Your task to perform on an android device: turn off improve location accuracy Image 0: 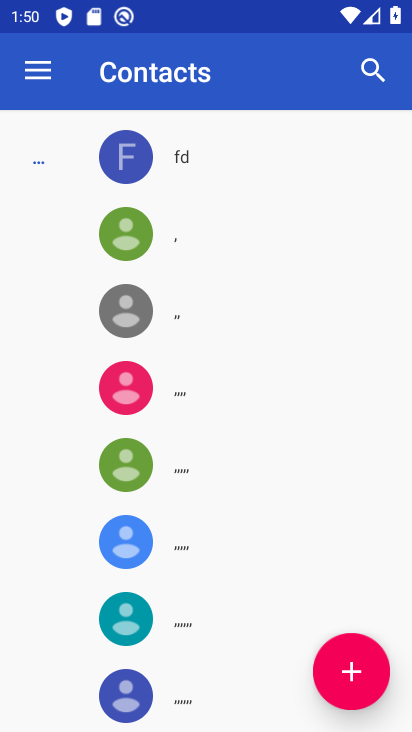
Step 0: press home button
Your task to perform on an android device: turn off improve location accuracy Image 1: 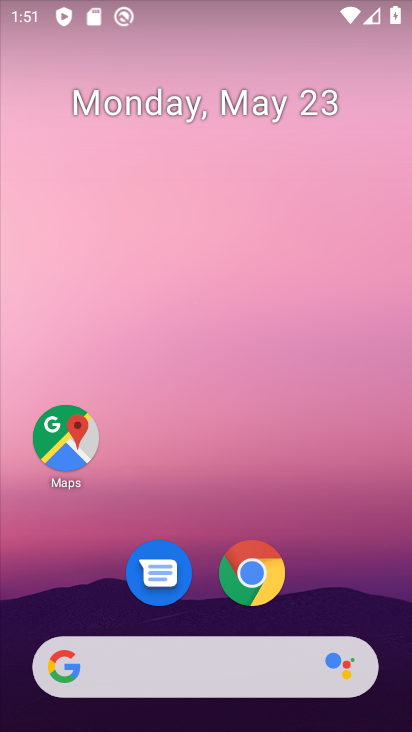
Step 1: drag from (374, 540) to (235, 49)
Your task to perform on an android device: turn off improve location accuracy Image 2: 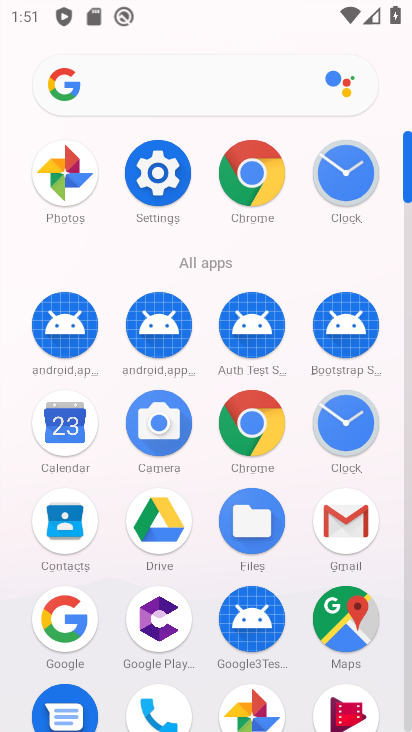
Step 2: click (159, 166)
Your task to perform on an android device: turn off improve location accuracy Image 3: 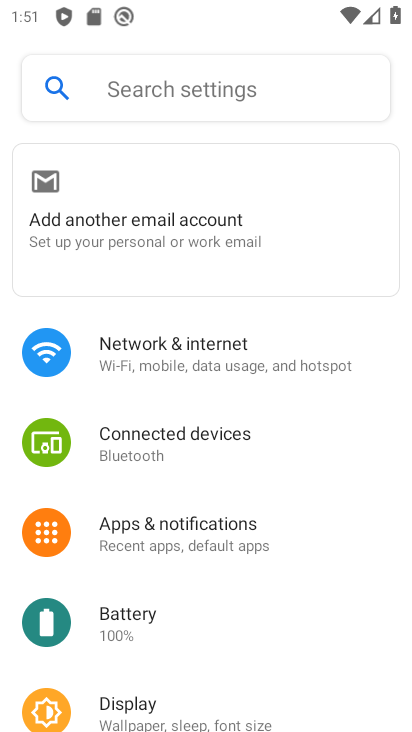
Step 3: drag from (229, 588) to (274, 91)
Your task to perform on an android device: turn off improve location accuracy Image 4: 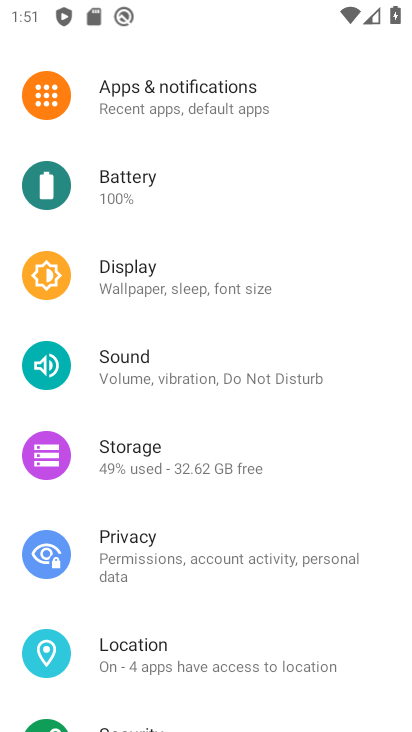
Step 4: drag from (203, 270) to (278, 123)
Your task to perform on an android device: turn off improve location accuracy Image 5: 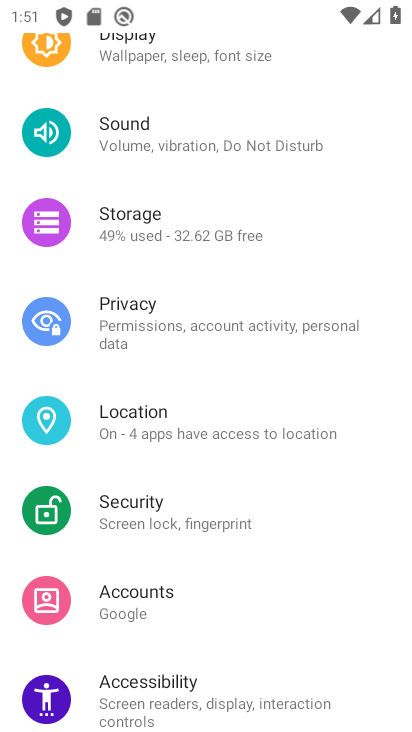
Step 5: drag from (224, 254) to (286, 644)
Your task to perform on an android device: turn off improve location accuracy Image 6: 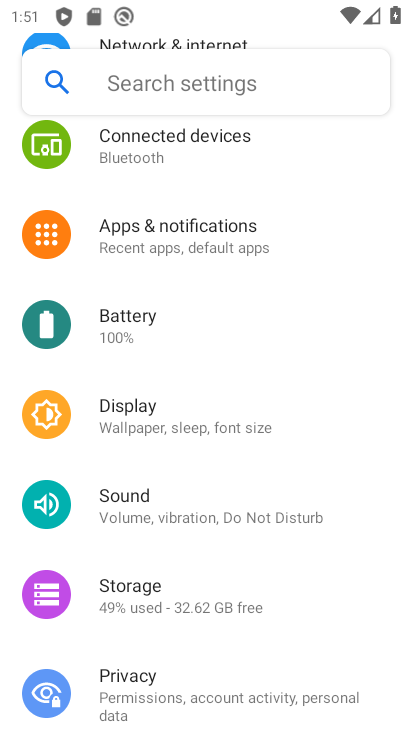
Step 6: drag from (225, 628) to (304, 250)
Your task to perform on an android device: turn off improve location accuracy Image 7: 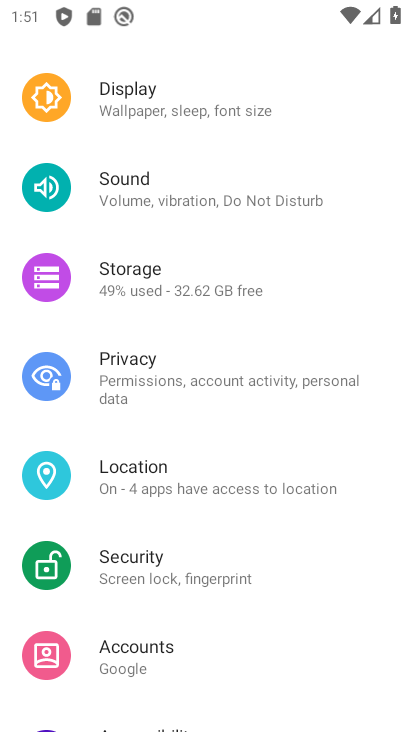
Step 7: click (160, 472)
Your task to perform on an android device: turn off improve location accuracy Image 8: 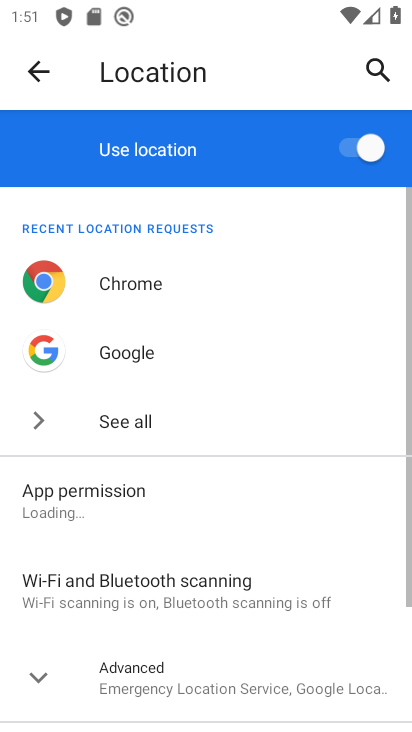
Step 8: drag from (219, 566) to (284, 225)
Your task to perform on an android device: turn off improve location accuracy Image 9: 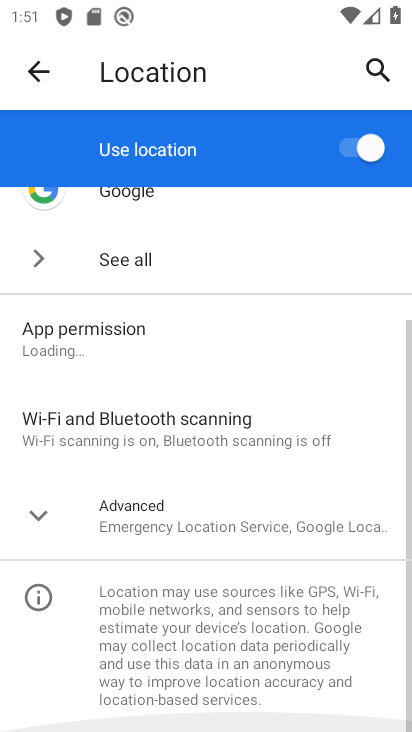
Step 9: click (193, 515)
Your task to perform on an android device: turn off improve location accuracy Image 10: 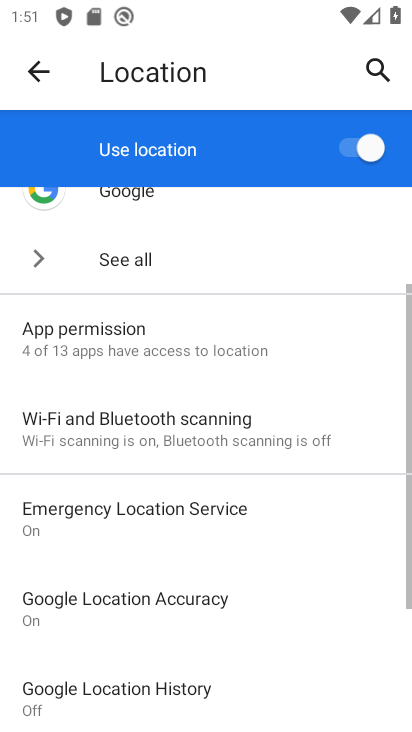
Step 10: drag from (288, 627) to (350, 314)
Your task to perform on an android device: turn off improve location accuracy Image 11: 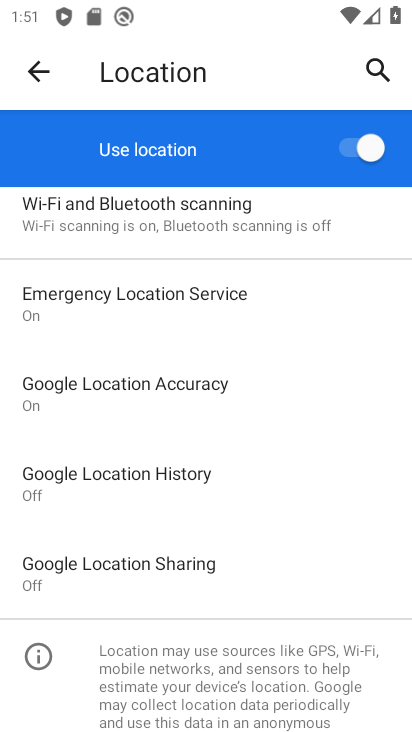
Step 11: click (123, 386)
Your task to perform on an android device: turn off improve location accuracy Image 12: 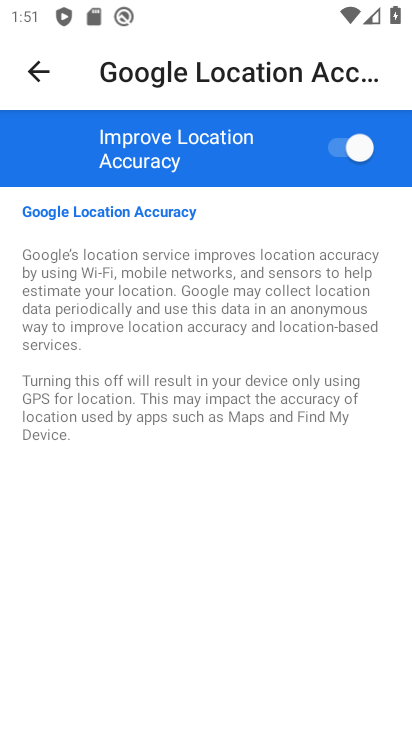
Step 12: click (353, 153)
Your task to perform on an android device: turn off improve location accuracy Image 13: 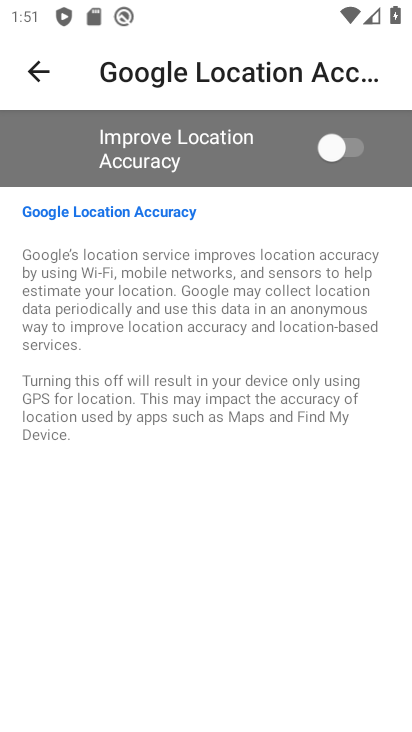
Step 13: task complete